Your task to perform on an android device: turn vacation reply on in the gmail app Image 0: 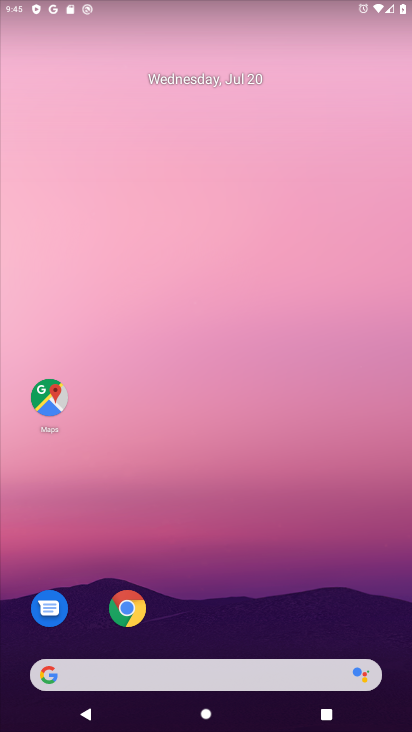
Step 0: press home button
Your task to perform on an android device: turn vacation reply on in the gmail app Image 1: 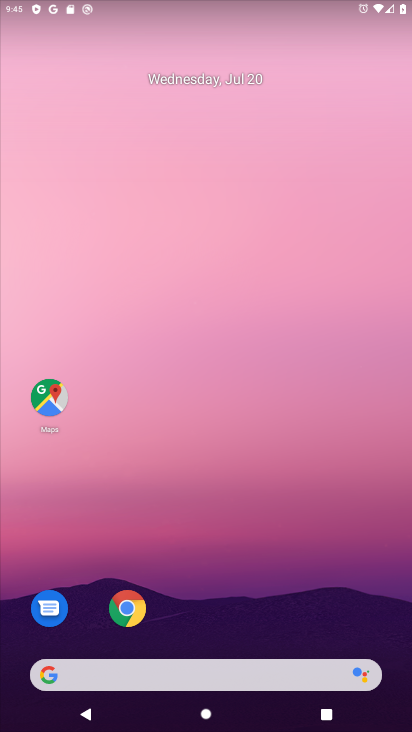
Step 1: drag from (210, 636) to (241, 4)
Your task to perform on an android device: turn vacation reply on in the gmail app Image 2: 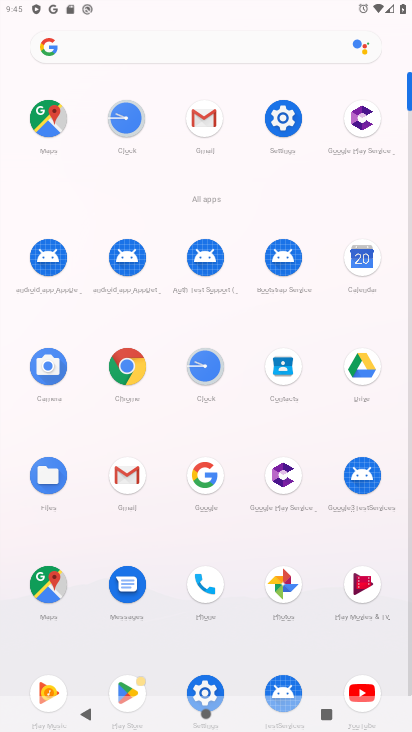
Step 2: click (200, 110)
Your task to perform on an android device: turn vacation reply on in the gmail app Image 3: 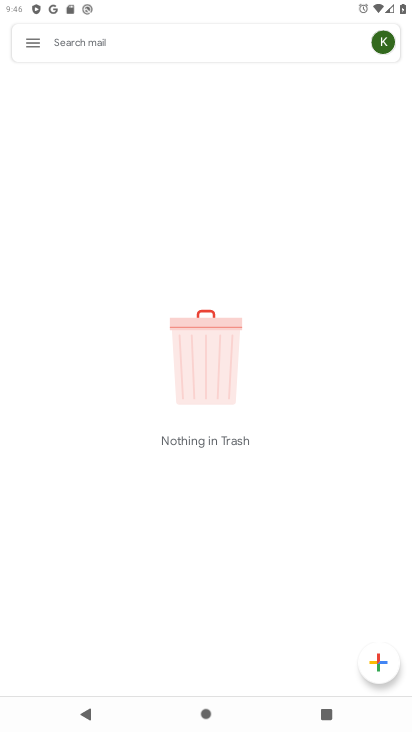
Step 3: click (30, 39)
Your task to perform on an android device: turn vacation reply on in the gmail app Image 4: 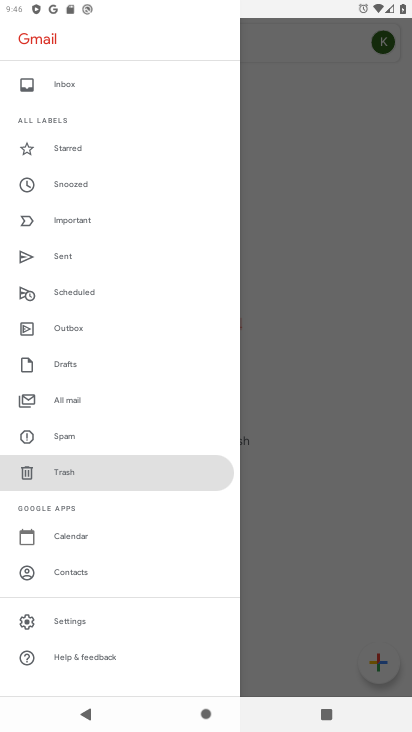
Step 4: click (87, 614)
Your task to perform on an android device: turn vacation reply on in the gmail app Image 5: 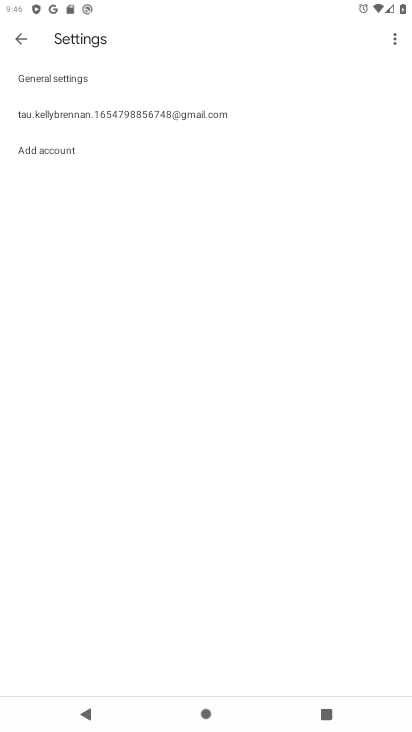
Step 5: click (125, 105)
Your task to perform on an android device: turn vacation reply on in the gmail app Image 6: 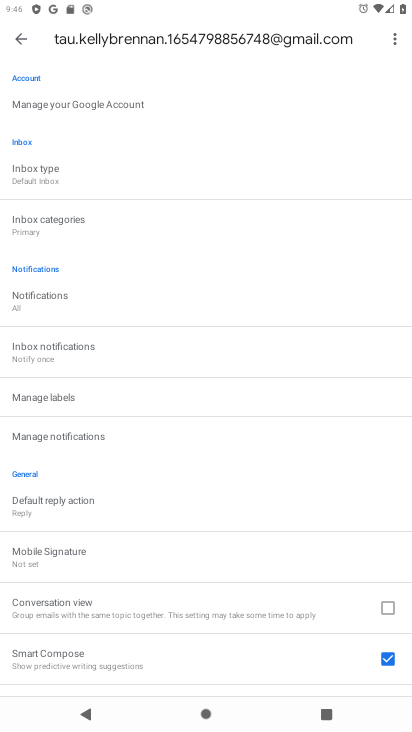
Step 6: drag from (156, 633) to (204, 59)
Your task to perform on an android device: turn vacation reply on in the gmail app Image 7: 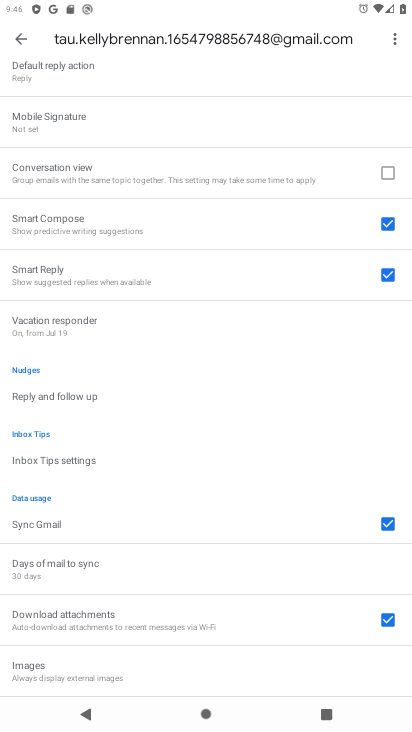
Step 7: click (115, 324)
Your task to perform on an android device: turn vacation reply on in the gmail app Image 8: 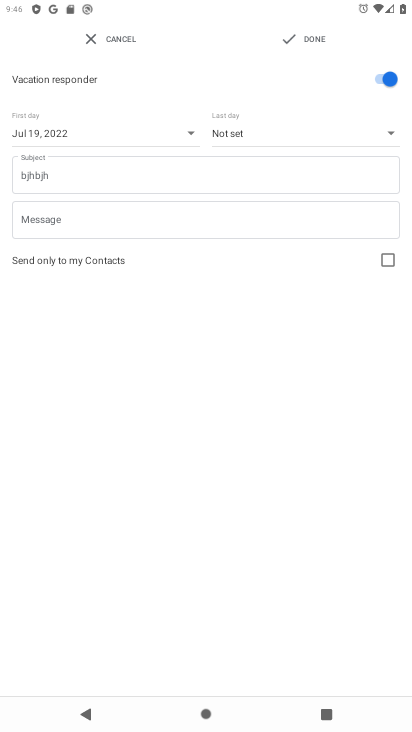
Step 8: task complete